Your task to perform on an android device: turn off picture-in-picture Image 0: 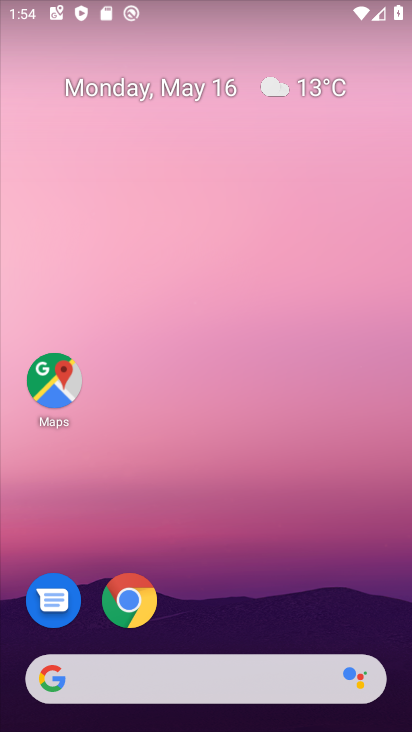
Step 0: click (122, 601)
Your task to perform on an android device: turn off picture-in-picture Image 1: 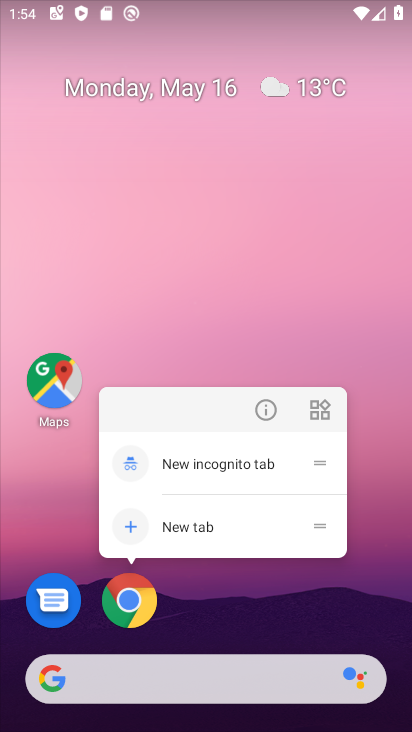
Step 1: click (262, 414)
Your task to perform on an android device: turn off picture-in-picture Image 2: 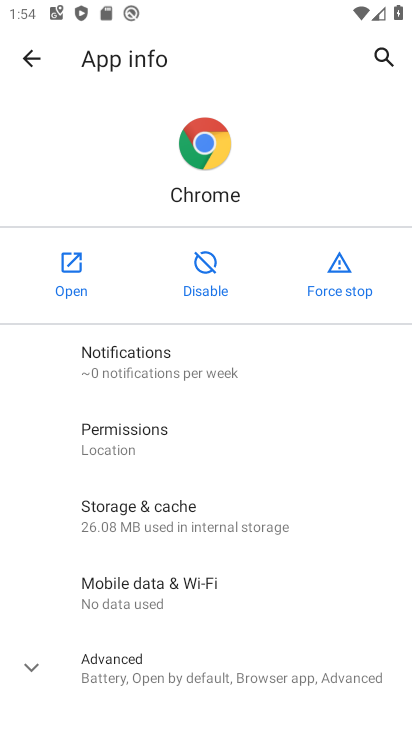
Step 2: click (106, 665)
Your task to perform on an android device: turn off picture-in-picture Image 3: 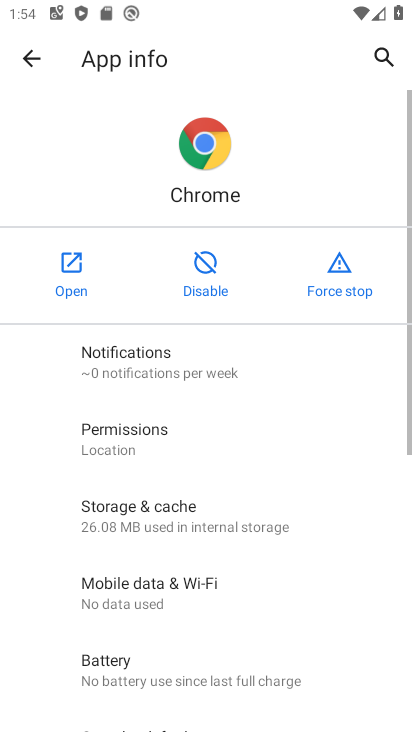
Step 3: drag from (177, 644) to (168, 172)
Your task to perform on an android device: turn off picture-in-picture Image 4: 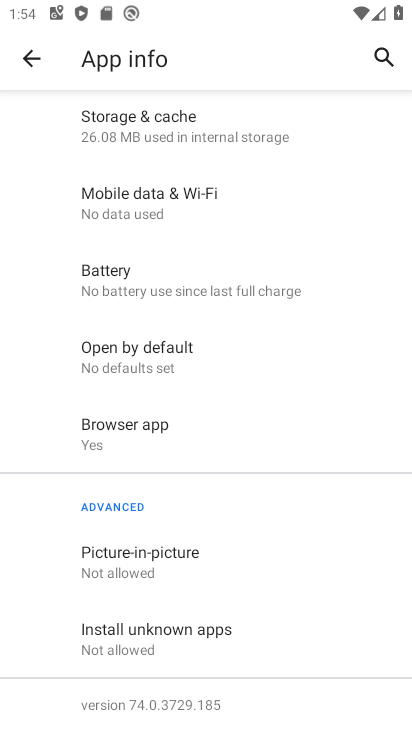
Step 4: click (164, 567)
Your task to perform on an android device: turn off picture-in-picture Image 5: 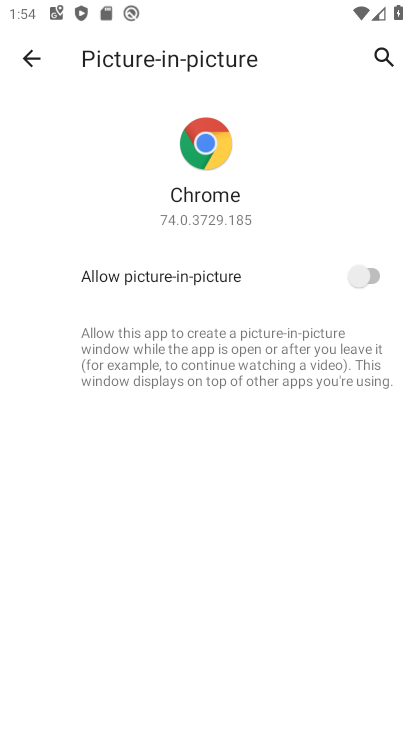
Step 5: task complete